Your task to perform on an android device: turn off data saver in the chrome app Image 0: 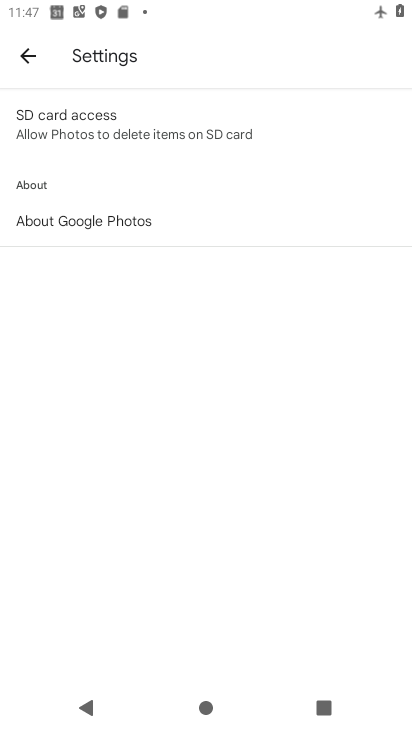
Step 0: press home button
Your task to perform on an android device: turn off data saver in the chrome app Image 1: 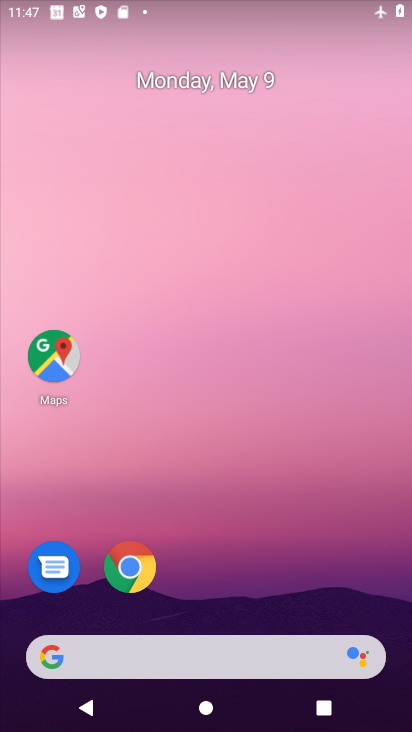
Step 1: drag from (319, 591) to (281, 6)
Your task to perform on an android device: turn off data saver in the chrome app Image 2: 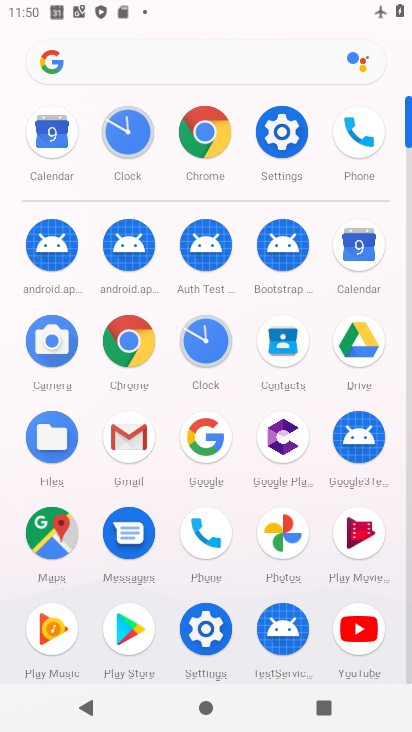
Step 2: click (129, 346)
Your task to perform on an android device: turn off data saver in the chrome app Image 3: 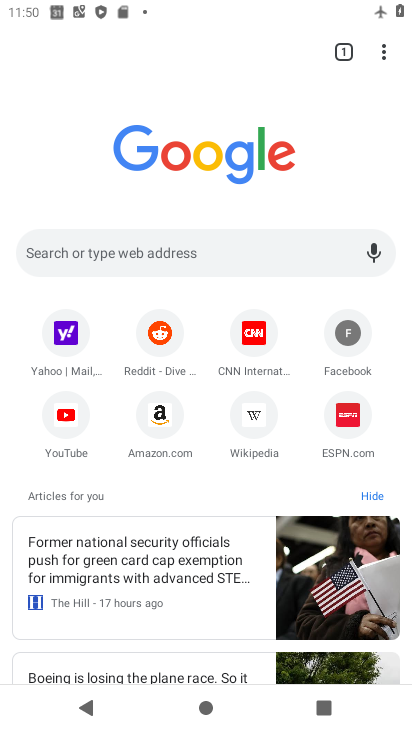
Step 3: click (387, 49)
Your task to perform on an android device: turn off data saver in the chrome app Image 4: 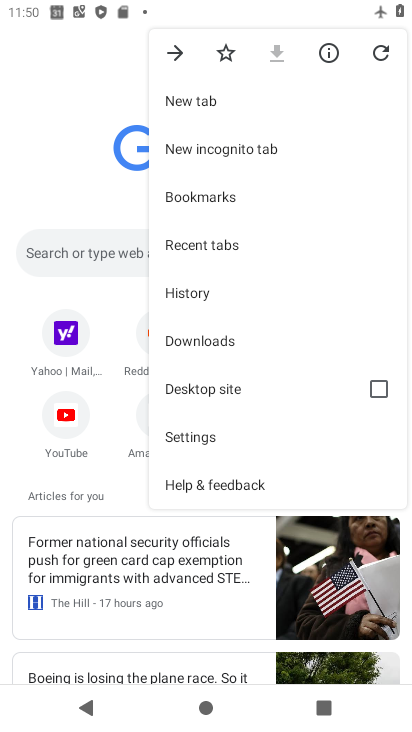
Step 4: click (191, 443)
Your task to perform on an android device: turn off data saver in the chrome app Image 5: 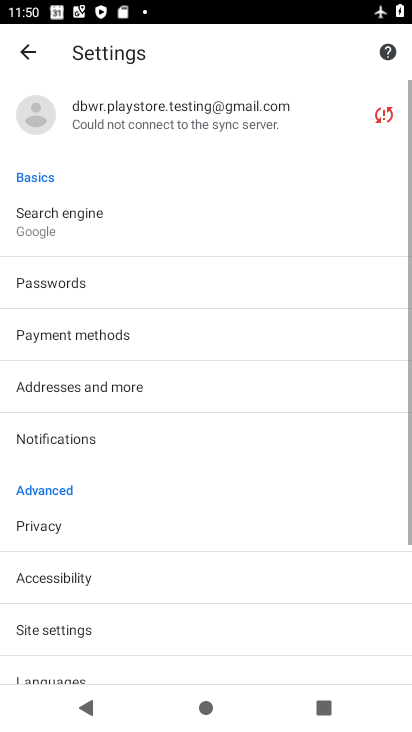
Step 5: drag from (102, 645) to (131, 224)
Your task to perform on an android device: turn off data saver in the chrome app Image 6: 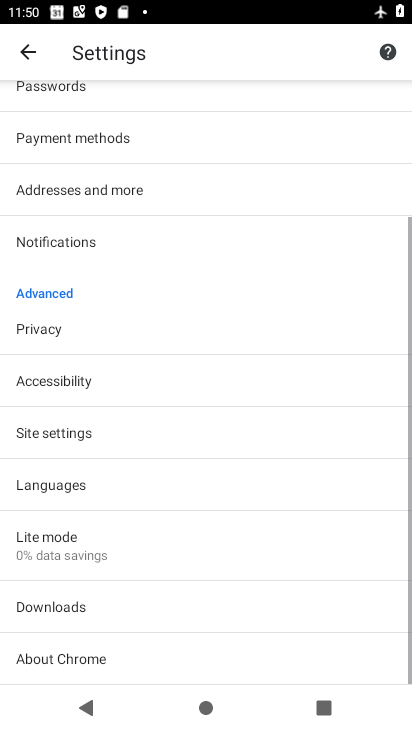
Step 6: click (72, 560)
Your task to perform on an android device: turn off data saver in the chrome app Image 7: 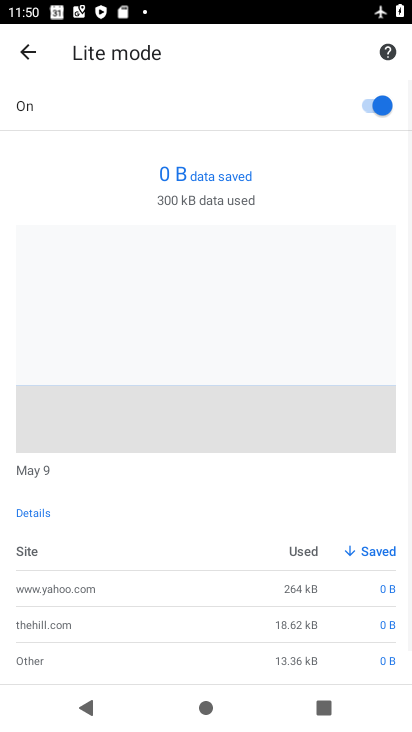
Step 7: click (359, 105)
Your task to perform on an android device: turn off data saver in the chrome app Image 8: 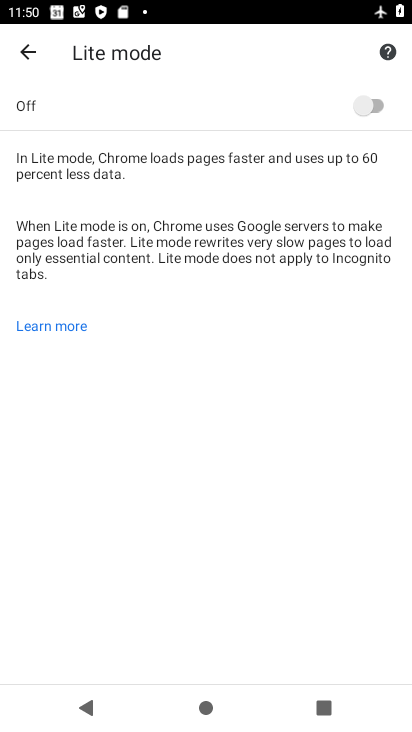
Step 8: task complete